Your task to perform on an android device: turn on translation in the chrome app Image 0: 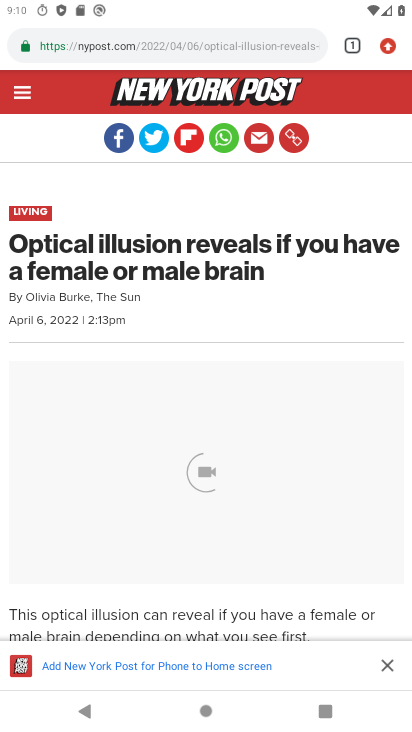
Step 0: drag from (387, 42) to (215, 555)
Your task to perform on an android device: turn on translation in the chrome app Image 1: 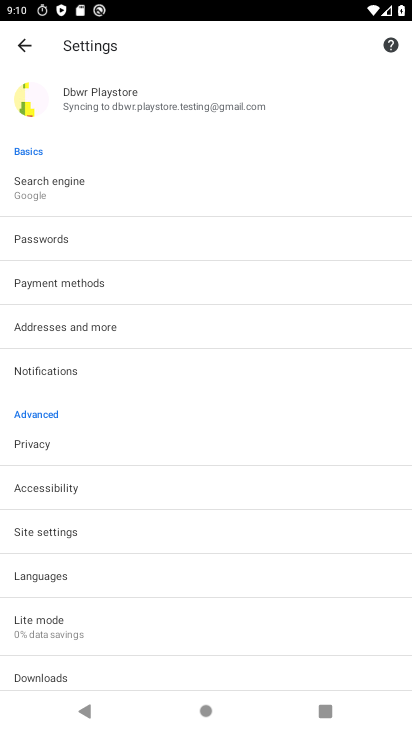
Step 1: click (50, 575)
Your task to perform on an android device: turn on translation in the chrome app Image 2: 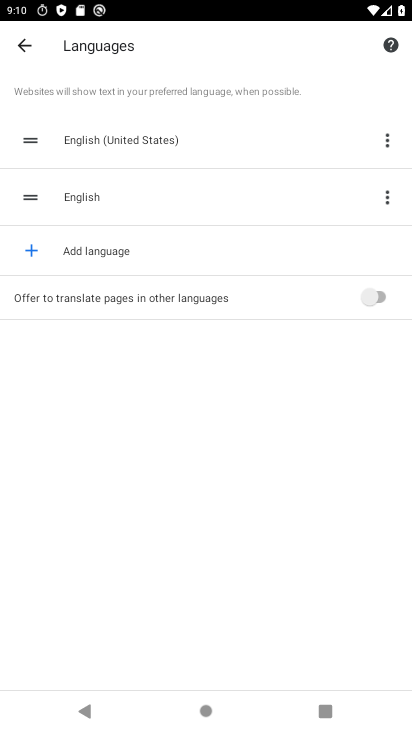
Step 2: click (376, 294)
Your task to perform on an android device: turn on translation in the chrome app Image 3: 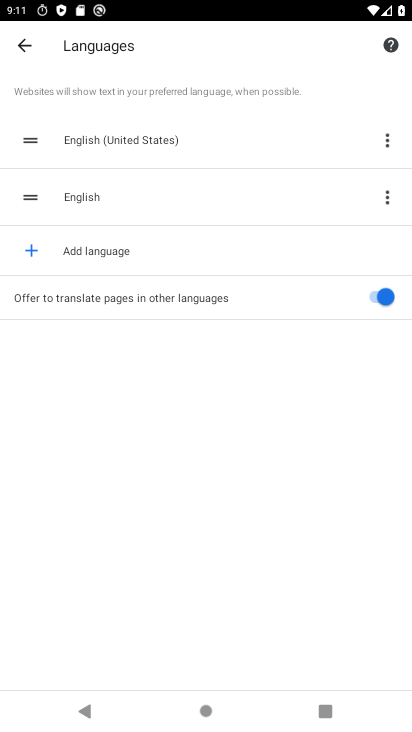
Step 3: task complete